Your task to perform on an android device: turn on priority inbox in the gmail app Image 0: 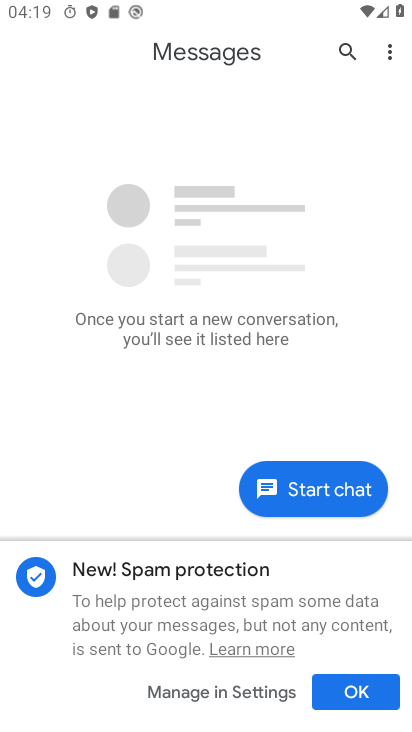
Step 0: press home button
Your task to perform on an android device: turn on priority inbox in the gmail app Image 1: 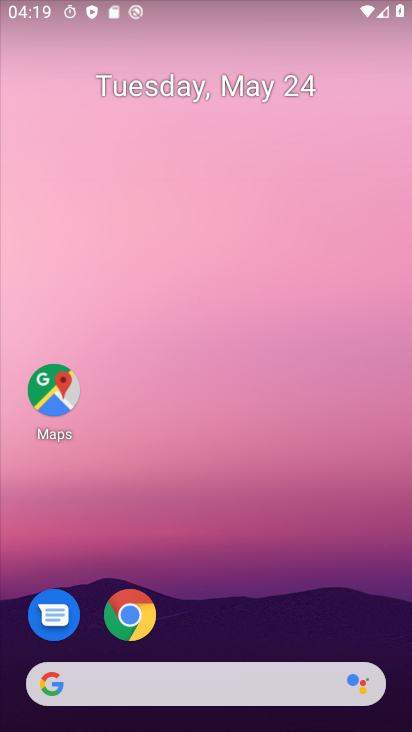
Step 1: drag from (179, 623) to (249, 144)
Your task to perform on an android device: turn on priority inbox in the gmail app Image 2: 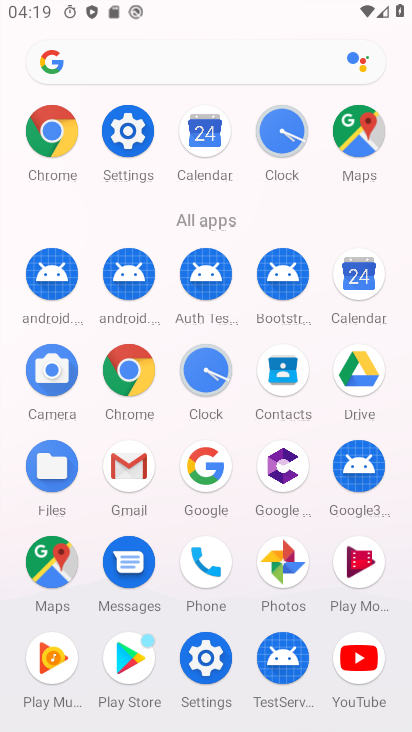
Step 2: click (132, 466)
Your task to perform on an android device: turn on priority inbox in the gmail app Image 3: 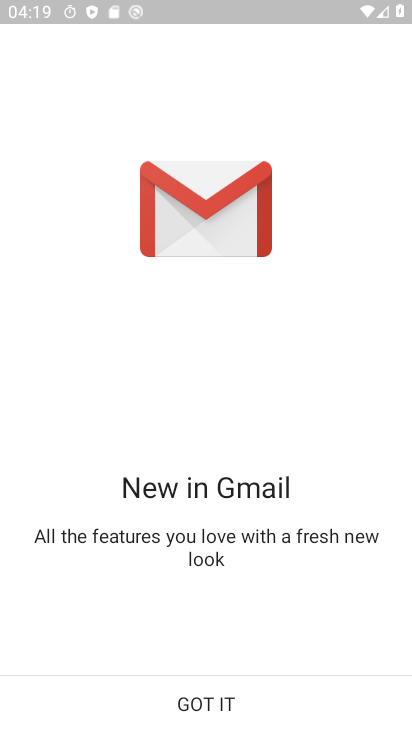
Step 3: click (205, 697)
Your task to perform on an android device: turn on priority inbox in the gmail app Image 4: 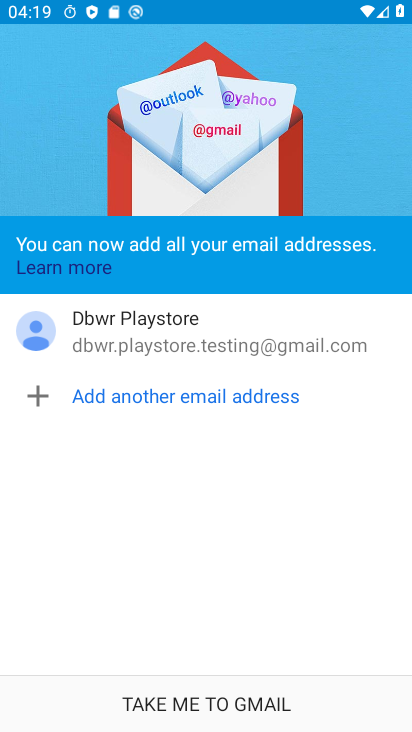
Step 4: click (196, 709)
Your task to perform on an android device: turn on priority inbox in the gmail app Image 5: 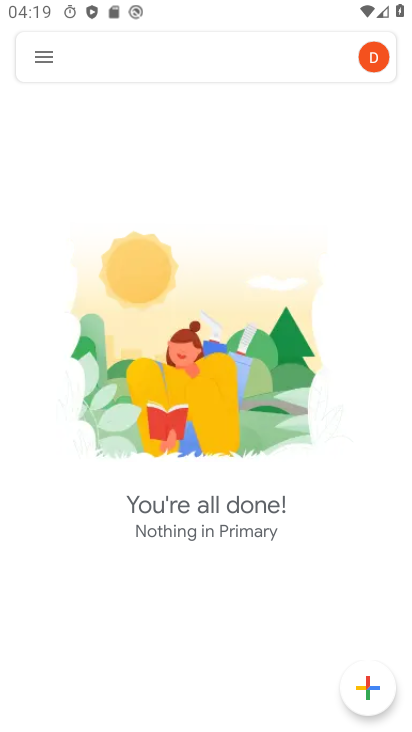
Step 5: click (39, 48)
Your task to perform on an android device: turn on priority inbox in the gmail app Image 6: 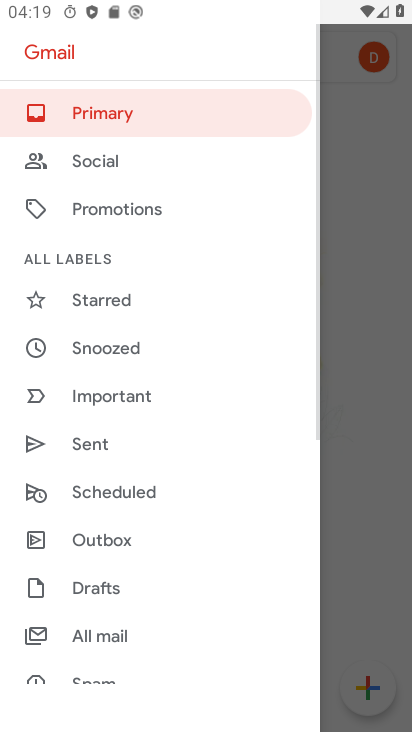
Step 6: drag from (112, 601) to (239, 69)
Your task to perform on an android device: turn on priority inbox in the gmail app Image 7: 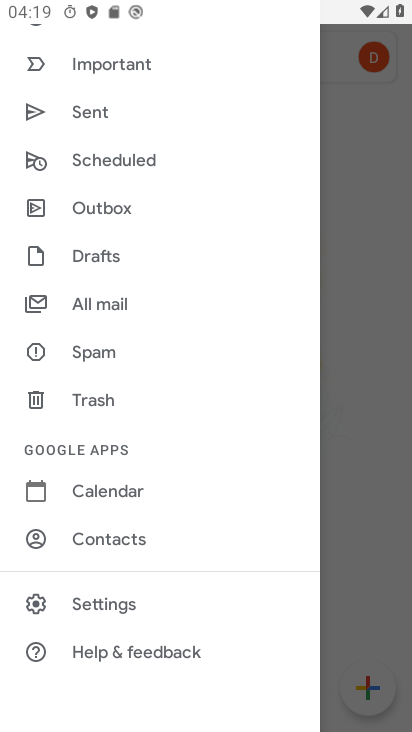
Step 7: click (102, 602)
Your task to perform on an android device: turn on priority inbox in the gmail app Image 8: 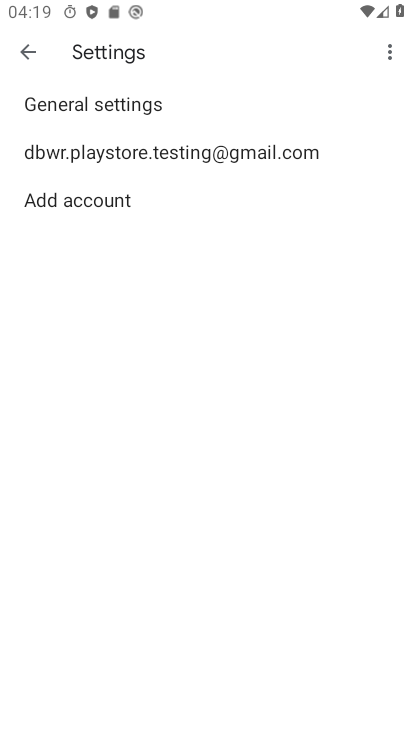
Step 8: click (103, 149)
Your task to perform on an android device: turn on priority inbox in the gmail app Image 9: 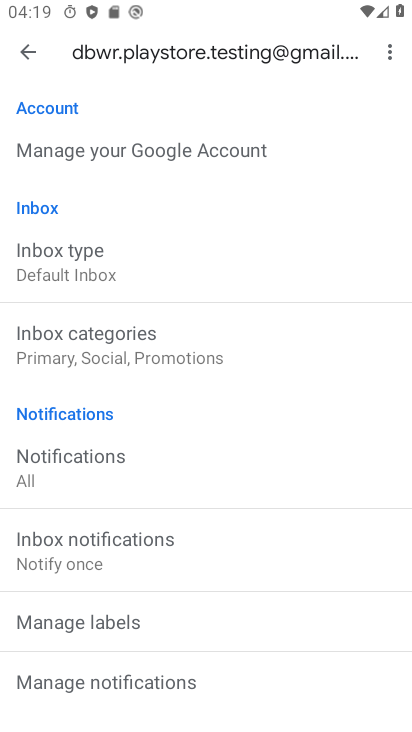
Step 9: click (94, 251)
Your task to perform on an android device: turn on priority inbox in the gmail app Image 10: 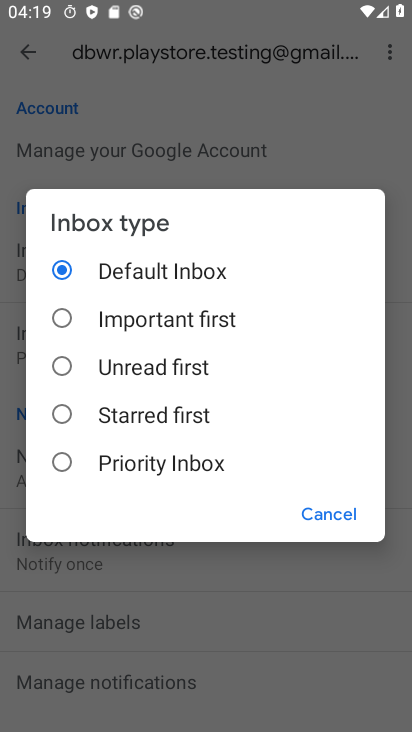
Step 10: click (62, 455)
Your task to perform on an android device: turn on priority inbox in the gmail app Image 11: 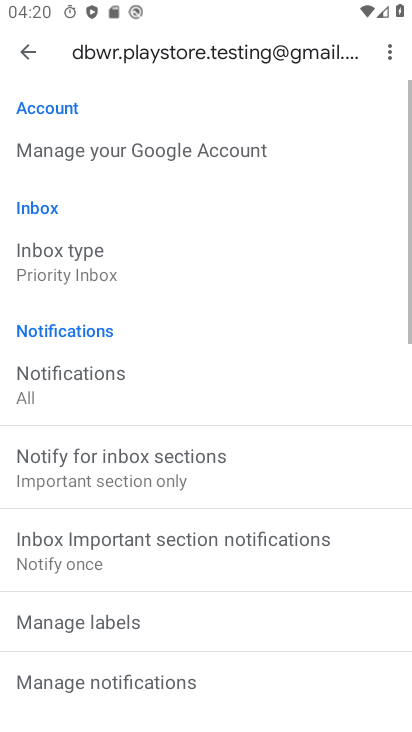
Step 11: task complete